Your task to perform on an android device: turn off notifications in google photos Image 0: 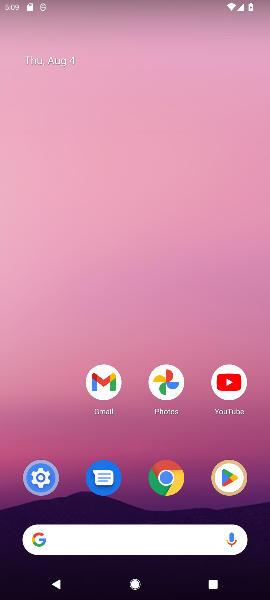
Step 0: drag from (131, 439) to (187, 0)
Your task to perform on an android device: turn off notifications in google photos Image 1: 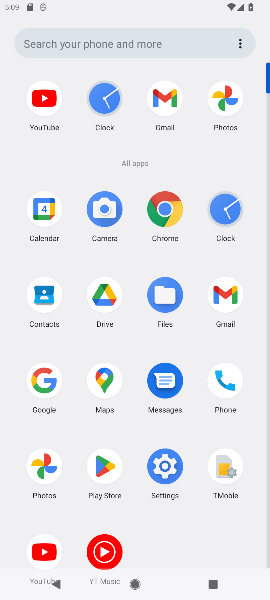
Step 1: click (41, 467)
Your task to perform on an android device: turn off notifications in google photos Image 2: 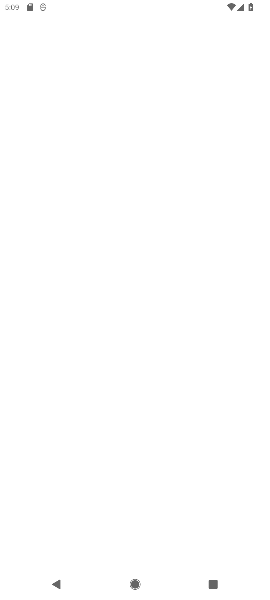
Step 2: drag from (138, 435) to (131, 247)
Your task to perform on an android device: turn off notifications in google photos Image 3: 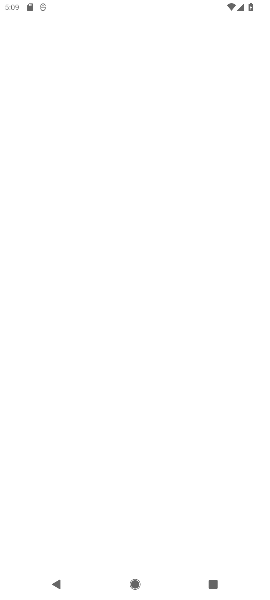
Step 3: press back button
Your task to perform on an android device: turn off notifications in google photos Image 4: 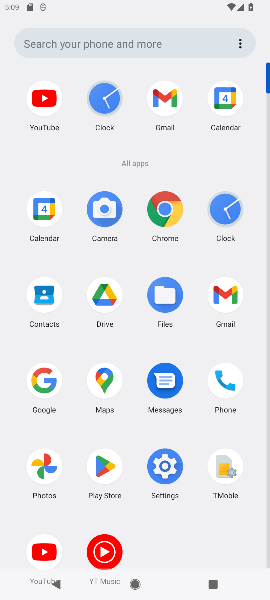
Step 4: click (56, 470)
Your task to perform on an android device: turn off notifications in google photos Image 5: 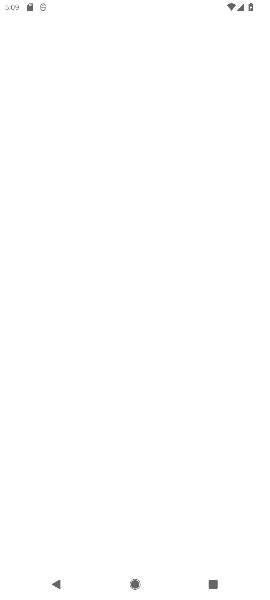
Step 5: task complete